Your task to perform on an android device: What is the capital of Switzerland? Image 0: 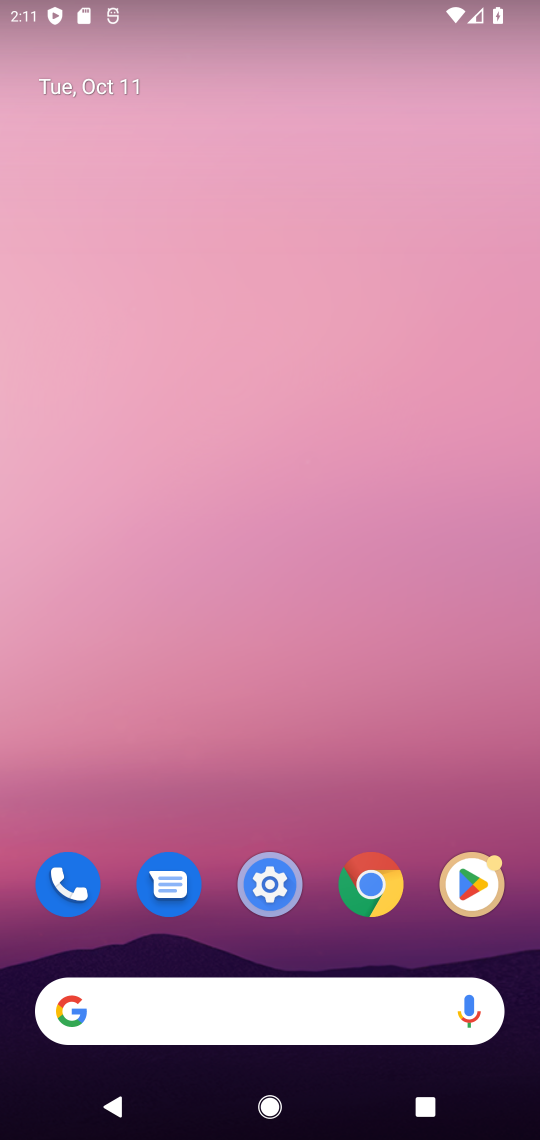
Step 0: click (378, 876)
Your task to perform on an android device: What is the capital of Switzerland? Image 1: 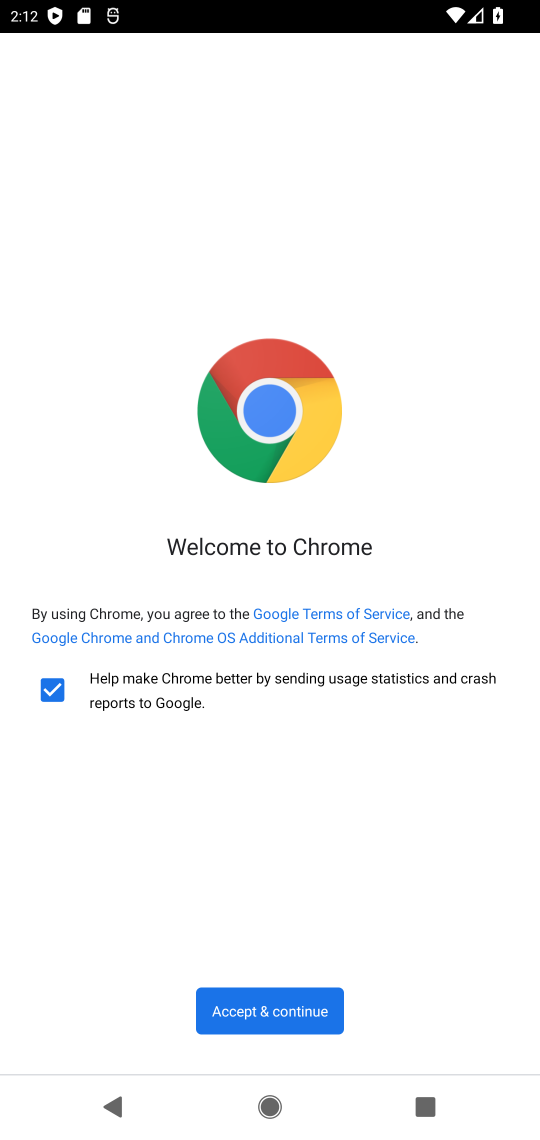
Step 1: click (249, 1008)
Your task to perform on an android device: What is the capital of Switzerland? Image 2: 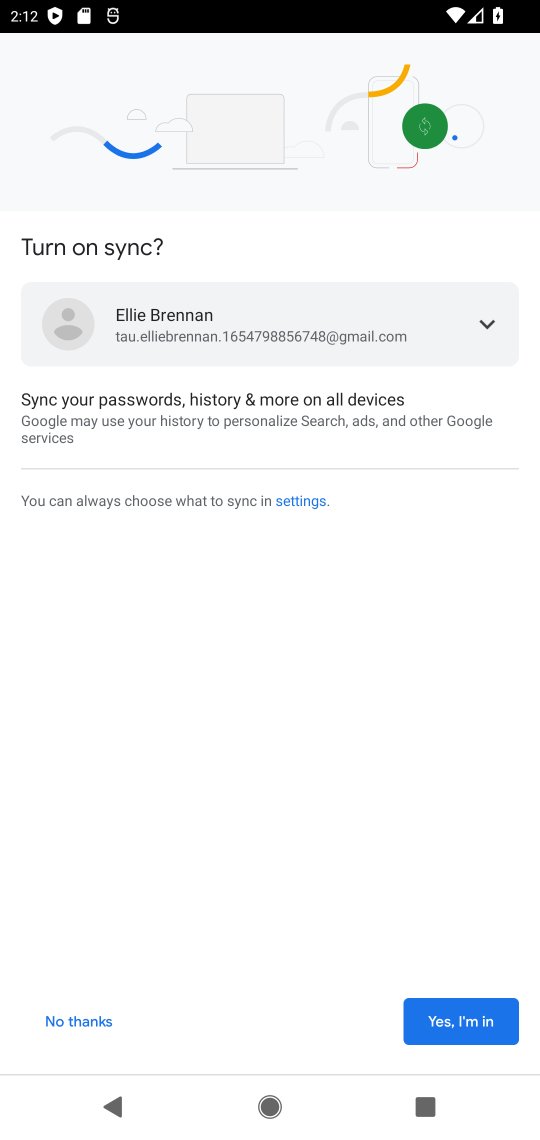
Step 2: click (443, 1018)
Your task to perform on an android device: What is the capital of Switzerland? Image 3: 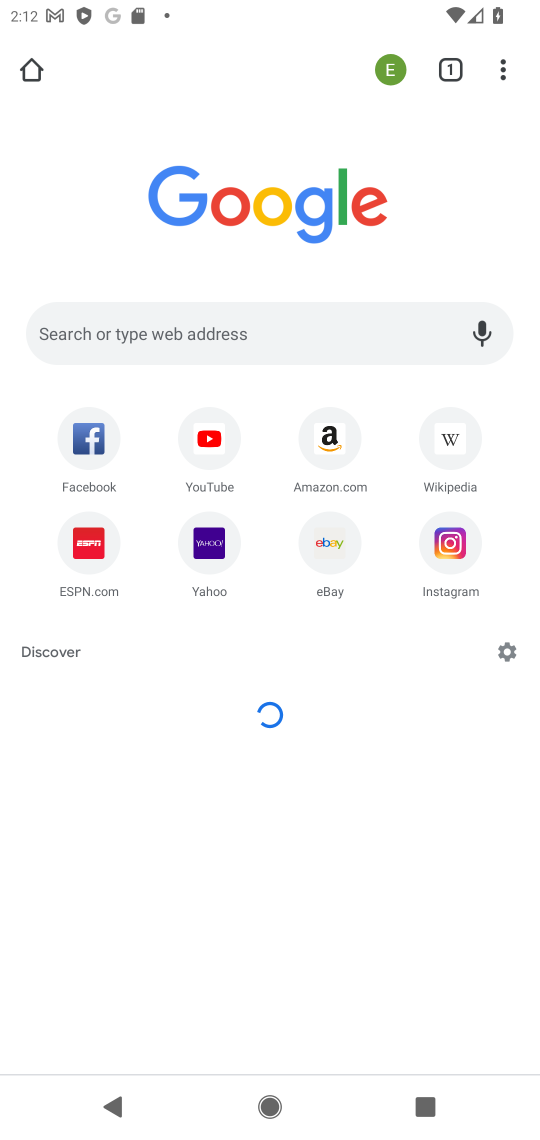
Step 3: click (337, 344)
Your task to perform on an android device: What is the capital of Switzerland? Image 4: 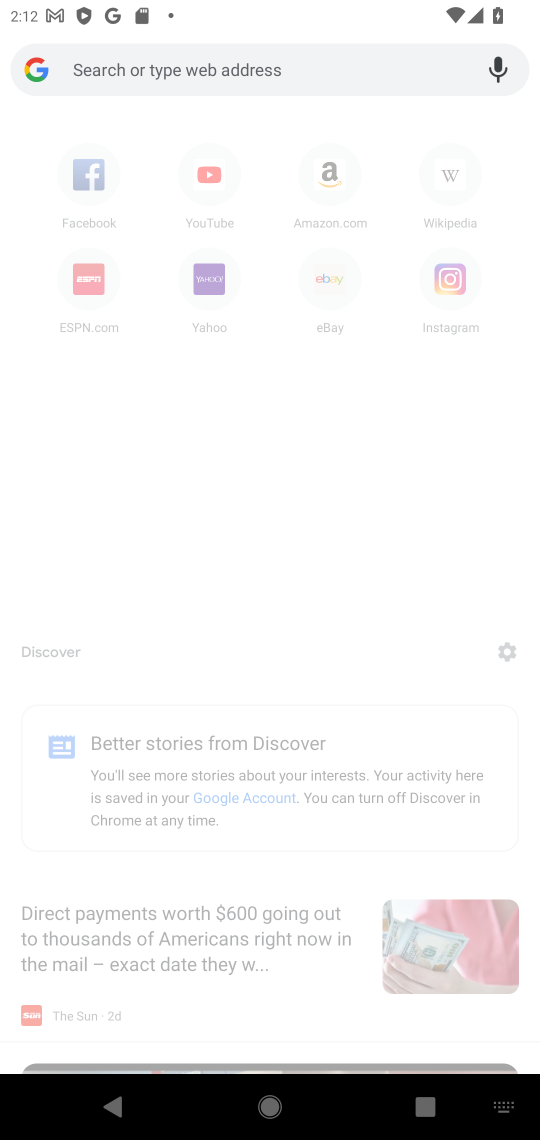
Step 4: type "capital of Switzerland"
Your task to perform on an android device: What is the capital of Switzerland? Image 5: 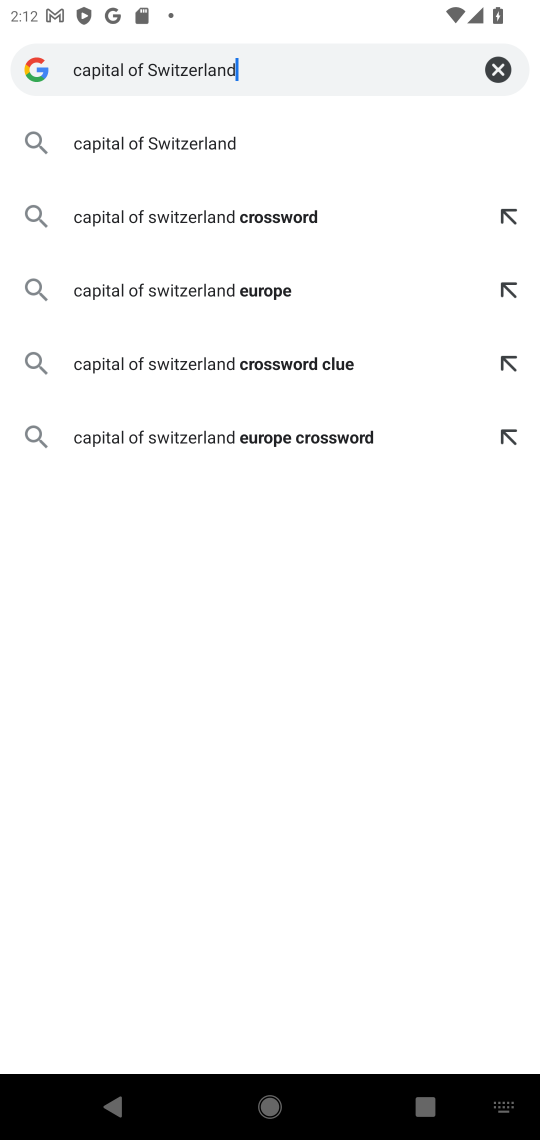
Step 5: click (177, 149)
Your task to perform on an android device: What is the capital of Switzerland? Image 6: 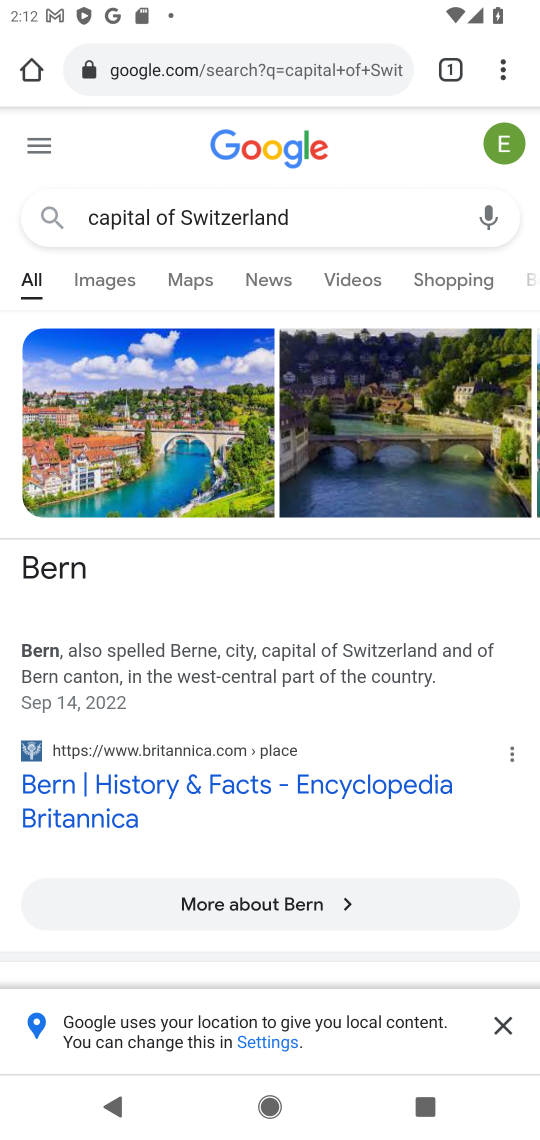
Step 6: task complete